Your task to perform on an android device: Go to location settings Image 0: 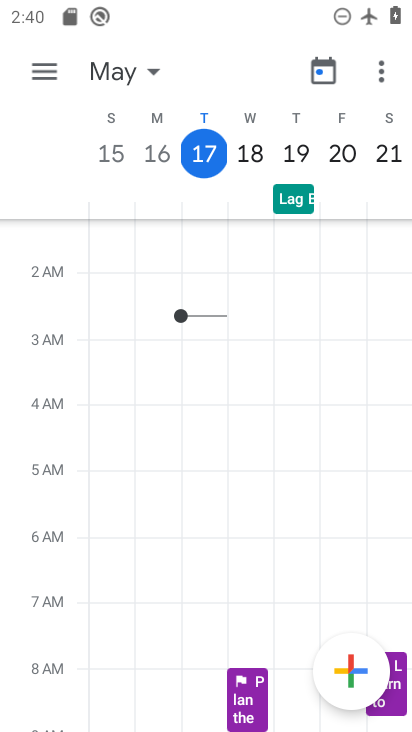
Step 0: press home button
Your task to perform on an android device: Go to location settings Image 1: 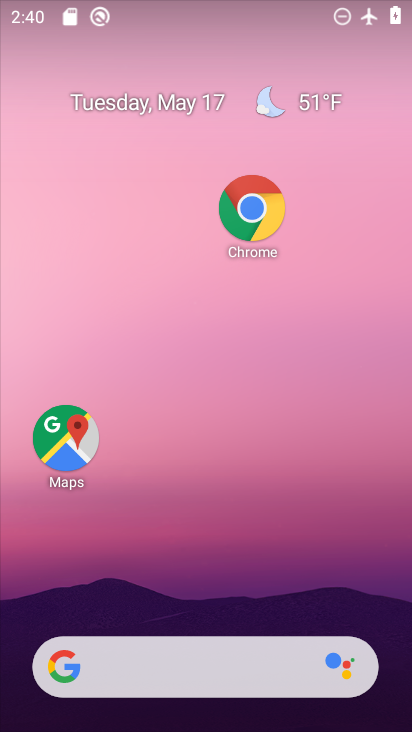
Step 1: drag from (230, 618) to (191, 72)
Your task to perform on an android device: Go to location settings Image 2: 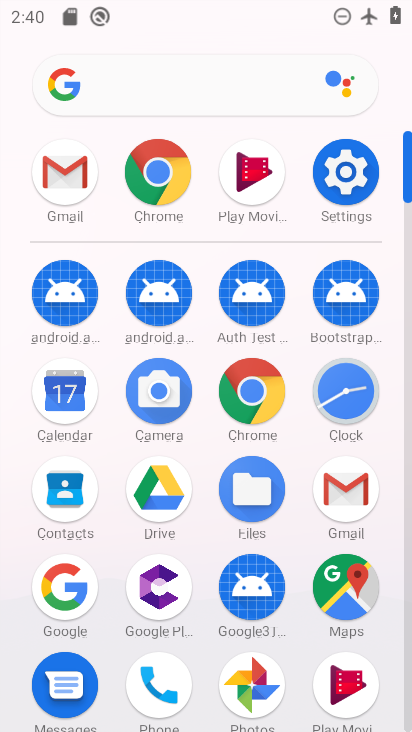
Step 2: click (333, 155)
Your task to perform on an android device: Go to location settings Image 3: 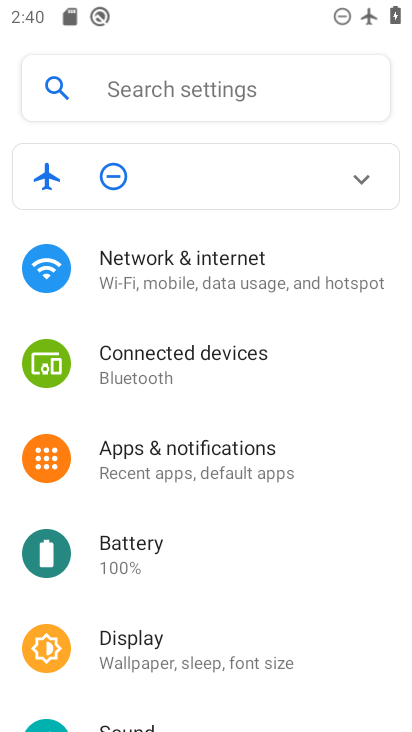
Step 3: drag from (271, 636) to (263, 195)
Your task to perform on an android device: Go to location settings Image 4: 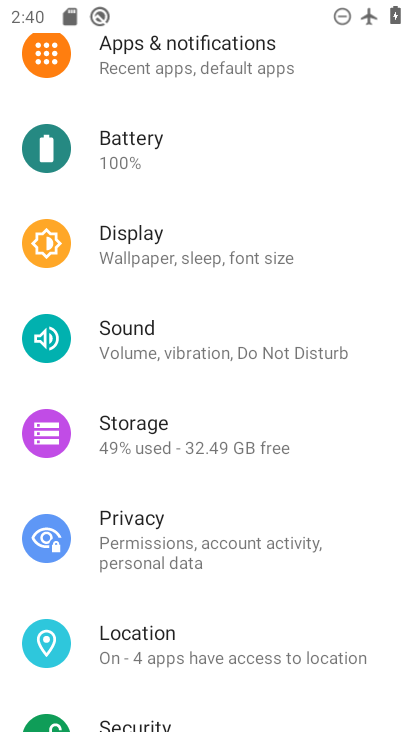
Step 4: click (145, 666)
Your task to perform on an android device: Go to location settings Image 5: 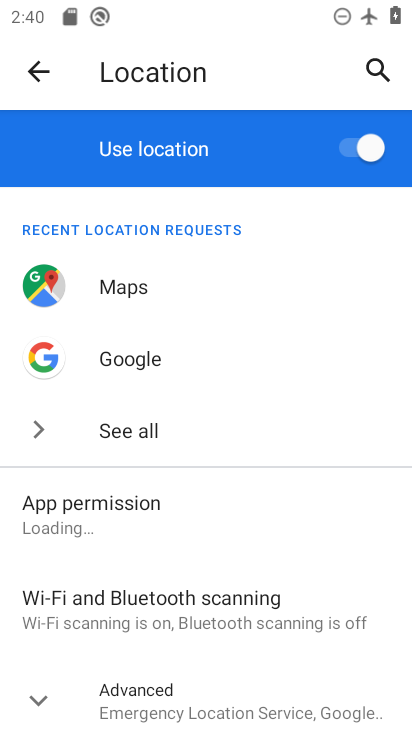
Step 5: click (149, 669)
Your task to perform on an android device: Go to location settings Image 6: 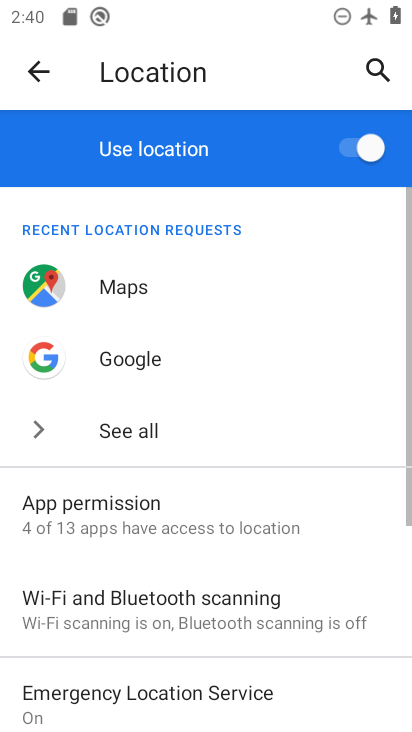
Step 6: task complete